Your task to perform on an android device: Turn on the flashlight Image 0: 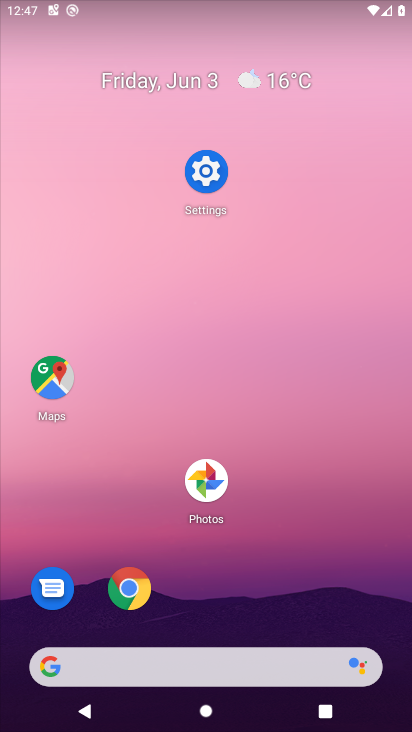
Step 0: drag from (151, 309) to (175, 38)
Your task to perform on an android device: Turn on the flashlight Image 1: 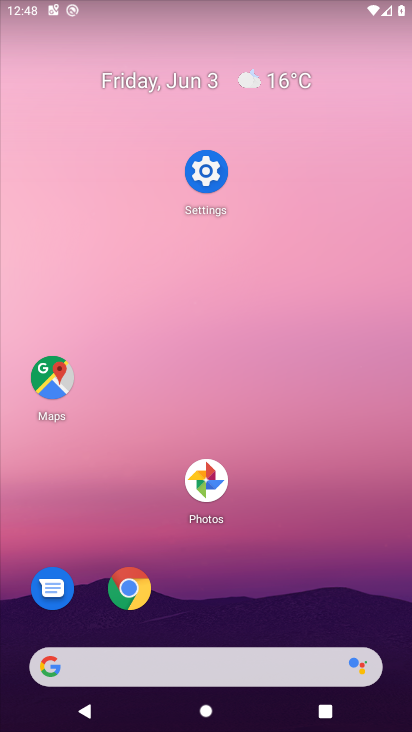
Step 1: drag from (177, 584) to (102, 3)
Your task to perform on an android device: Turn on the flashlight Image 2: 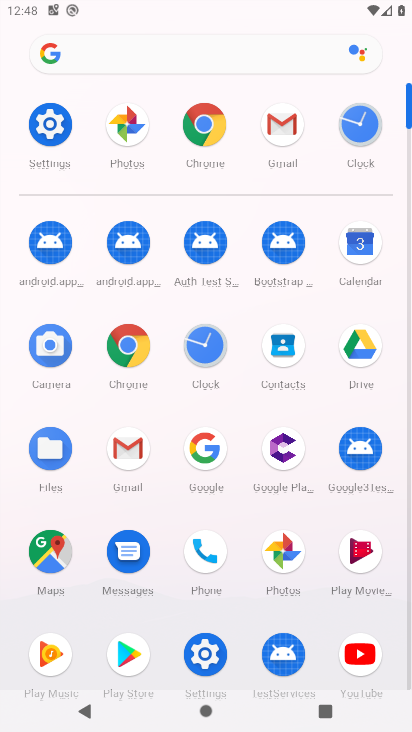
Step 2: click (47, 127)
Your task to perform on an android device: Turn on the flashlight Image 3: 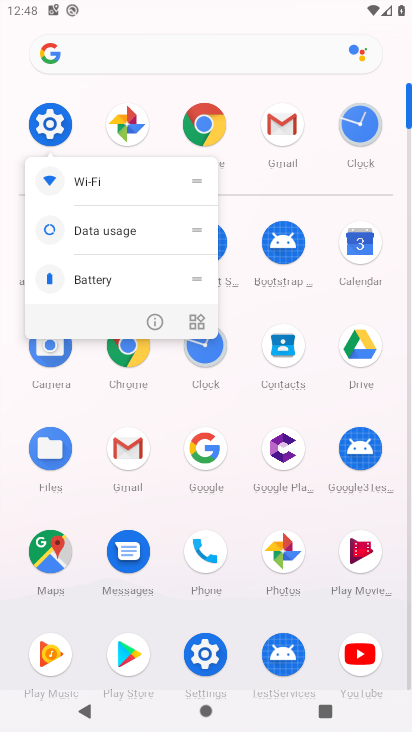
Step 3: click (154, 324)
Your task to perform on an android device: Turn on the flashlight Image 4: 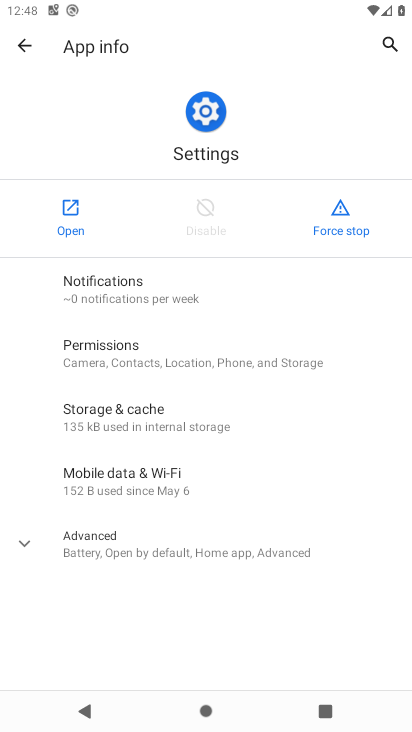
Step 4: click (60, 231)
Your task to perform on an android device: Turn on the flashlight Image 5: 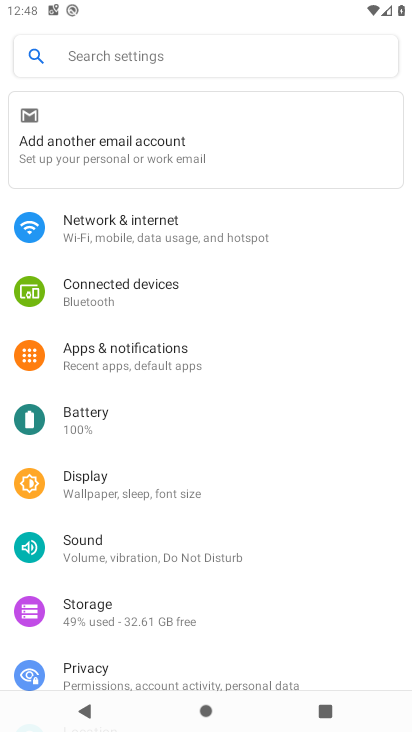
Step 5: click (101, 78)
Your task to perform on an android device: Turn on the flashlight Image 6: 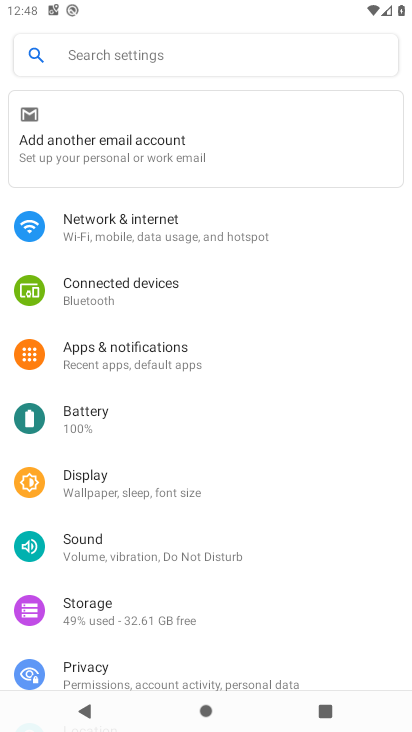
Step 6: click (119, 57)
Your task to perform on an android device: Turn on the flashlight Image 7: 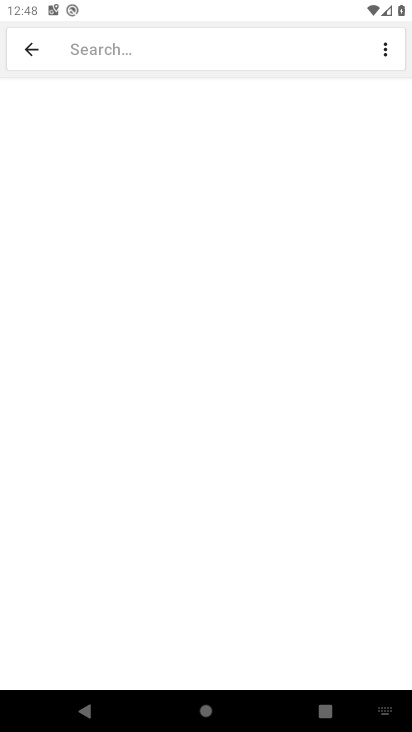
Step 7: type ""
Your task to perform on an android device: Turn on the flashlight Image 8: 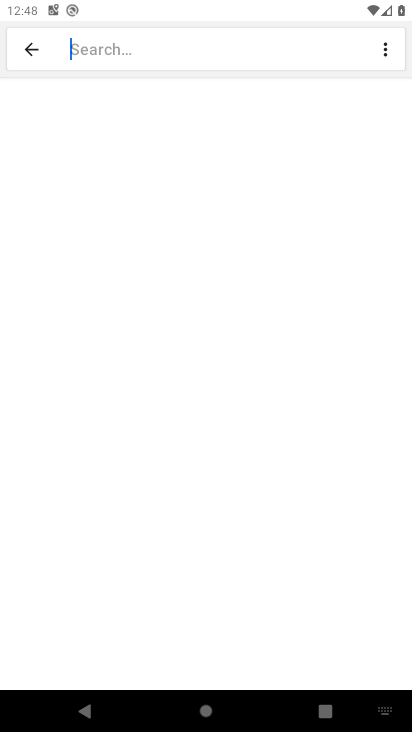
Step 8: type "flashlight"
Your task to perform on an android device: Turn on the flashlight Image 9: 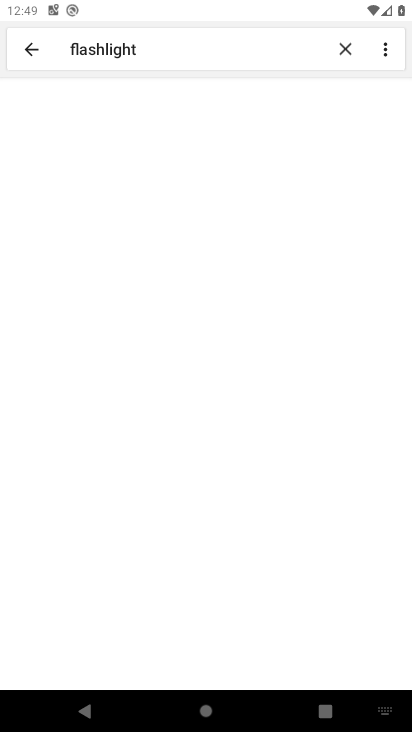
Step 9: click (209, 122)
Your task to perform on an android device: Turn on the flashlight Image 10: 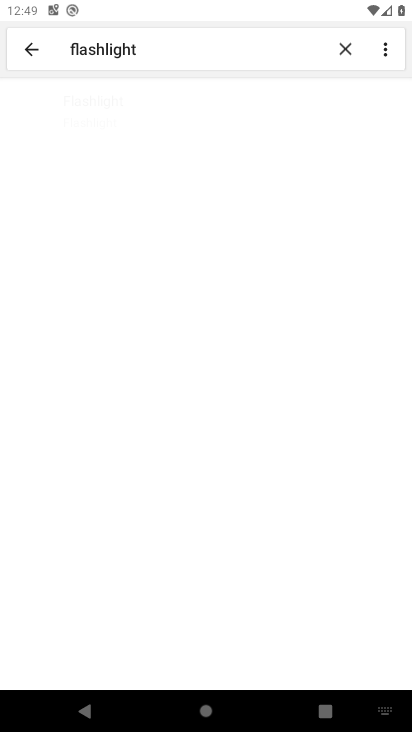
Step 10: click (196, 113)
Your task to perform on an android device: Turn on the flashlight Image 11: 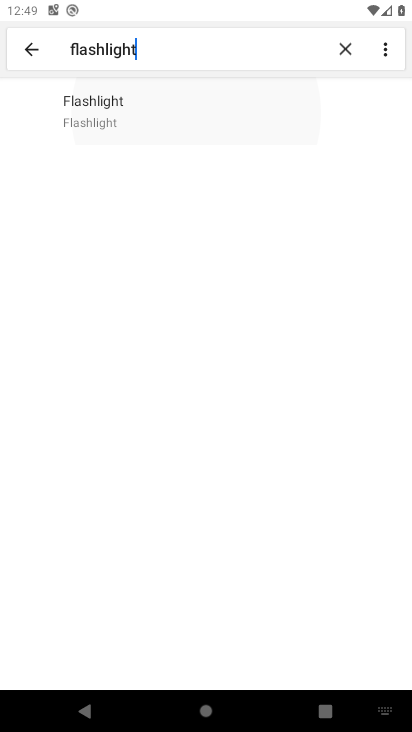
Step 11: click (191, 109)
Your task to perform on an android device: Turn on the flashlight Image 12: 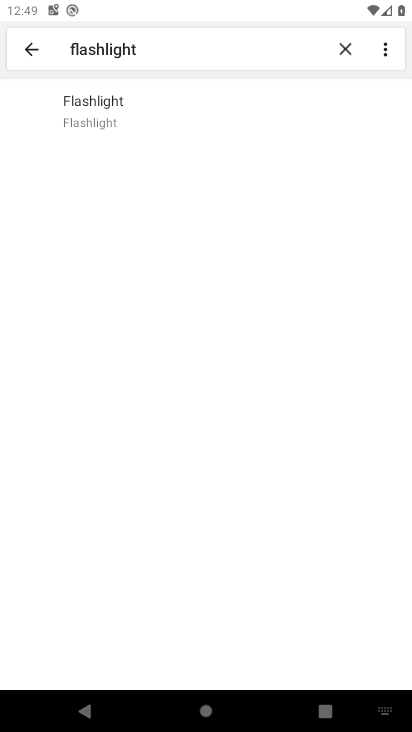
Step 12: task complete